Your task to perform on an android device: Open my contact list Image 0: 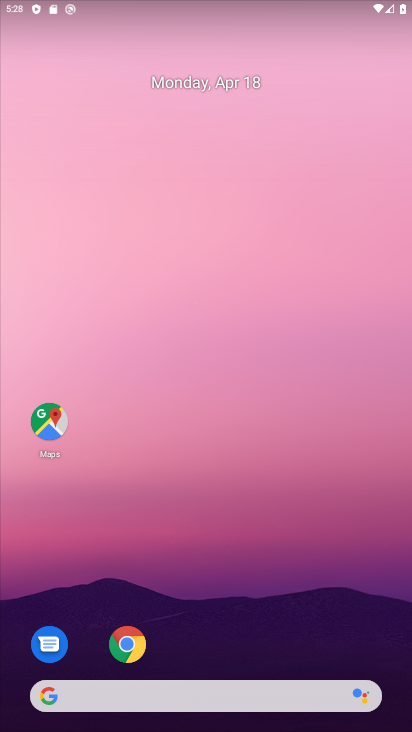
Step 0: press home button
Your task to perform on an android device: Open my contact list Image 1: 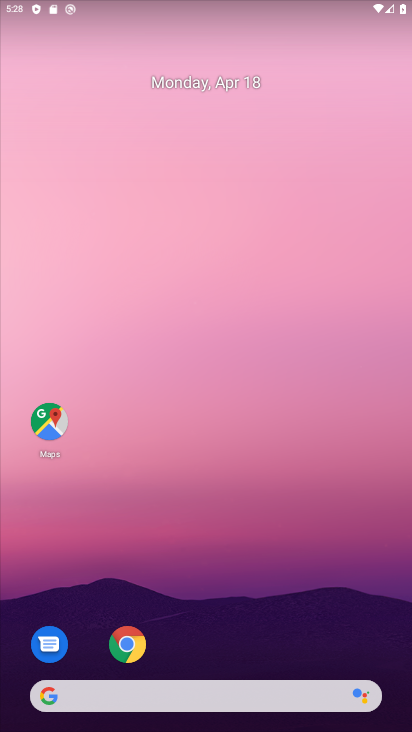
Step 1: press home button
Your task to perform on an android device: Open my contact list Image 2: 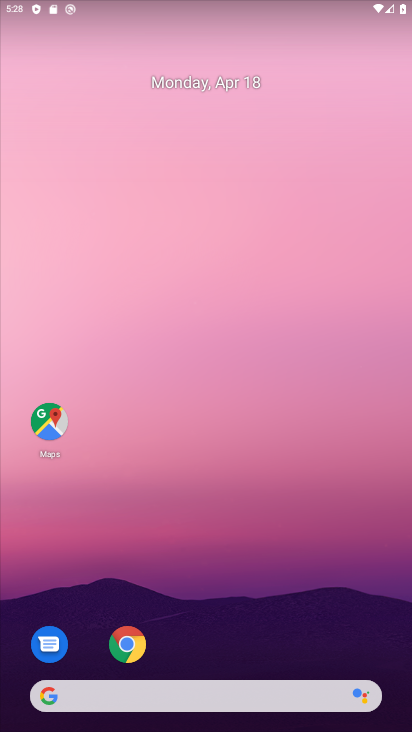
Step 2: drag from (217, 596) to (212, 164)
Your task to perform on an android device: Open my contact list Image 3: 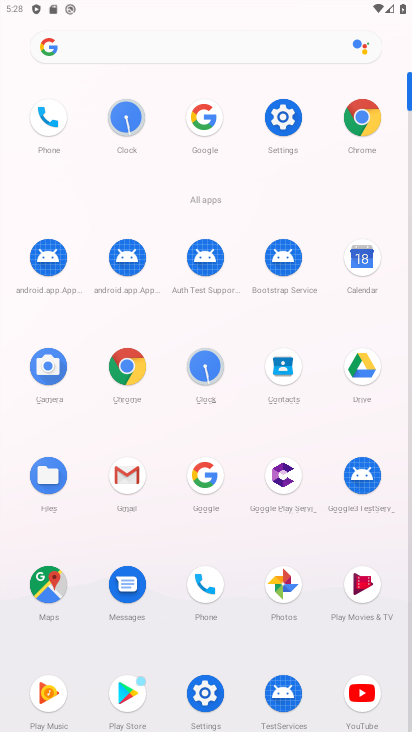
Step 3: click (286, 364)
Your task to perform on an android device: Open my contact list Image 4: 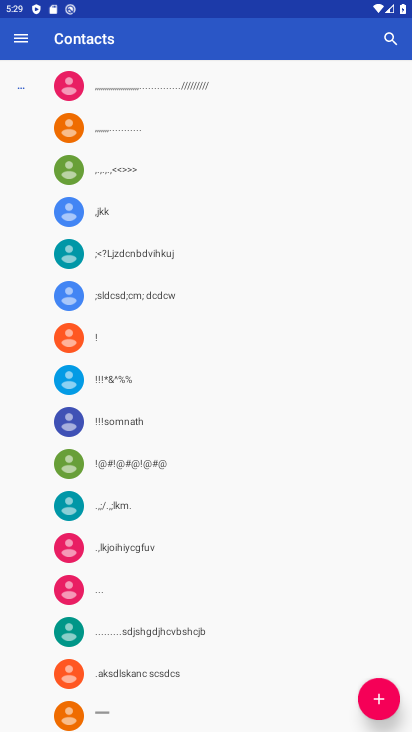
Step 4: task complete